Your task to perform on an android device: toggle pop-ups in chrome Image 0: 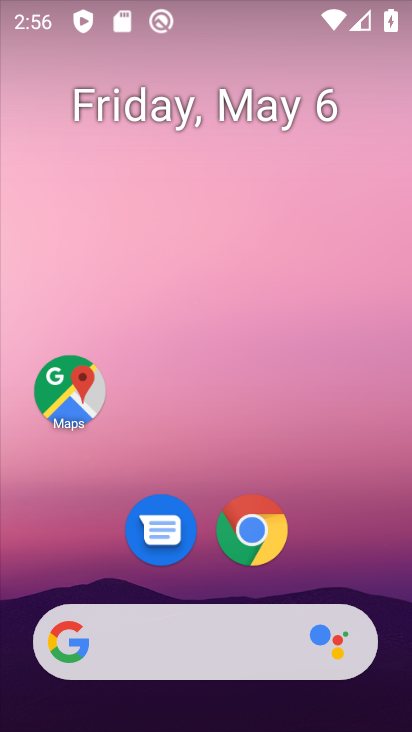
Step 0: drag from (197, 618) to (241, 184)
Your task to perform on an android device: toggle pop-ups in chrome Image 1: 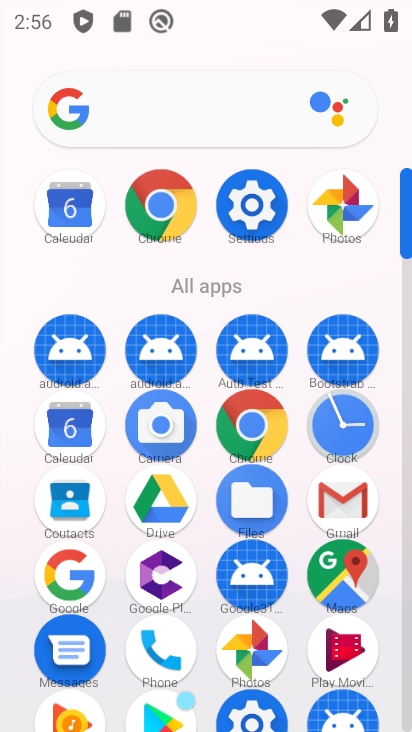
Step 1: click (184, 214)
Your task to perform on an android device: toggle pop-ups in chrome Image 2: 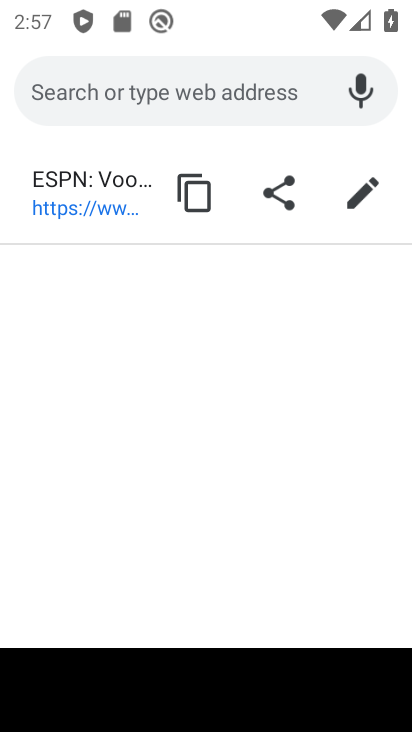
Step 2: press back button
Your task to perform on an android device: toggle pop-ups in chrome Image 3: 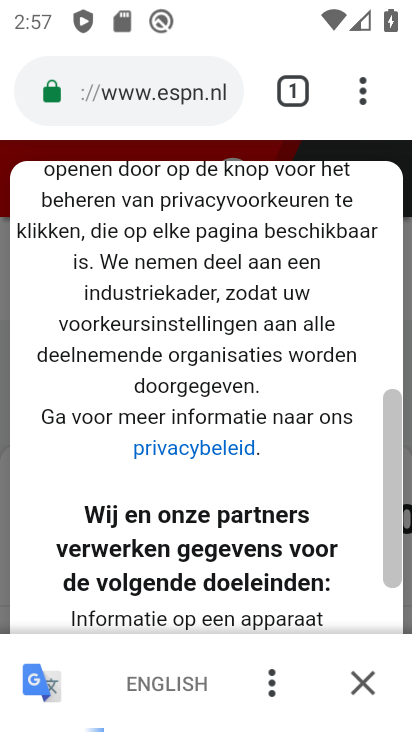
Step 3: click (359, 102)
Your task to perform on an android device: toggle pop-ups in chrome Image 4: 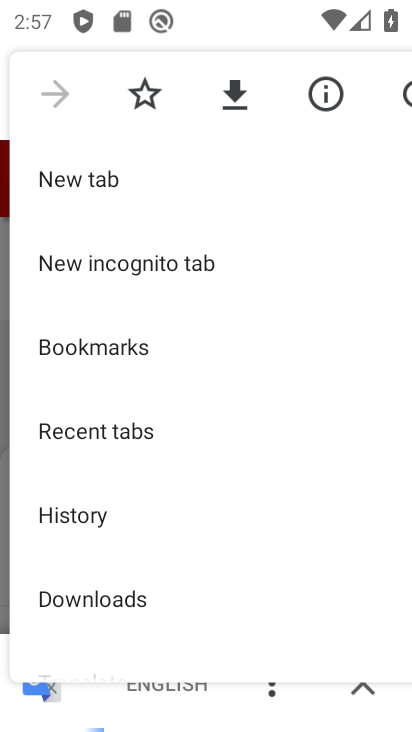
Step 4: drag from (206, 598) to (216, 379)
Your task to perform on an android device: toggle pop-ups in chrome Image 5: 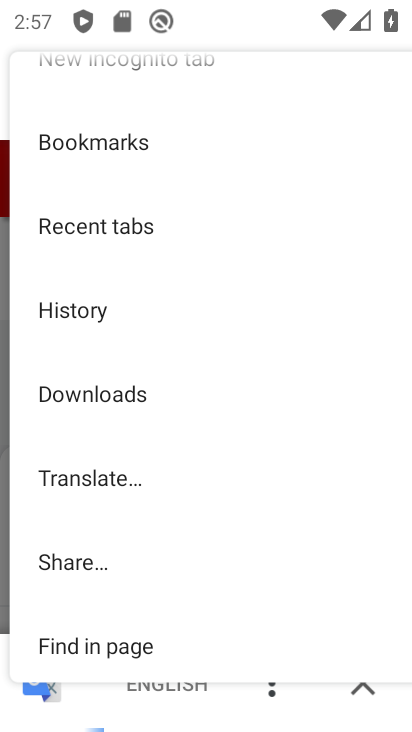
Step 5: drag from (212, 518) to (243, 229)
Your task to perform on an android device: toggle pop-ups in chrome Image 6: 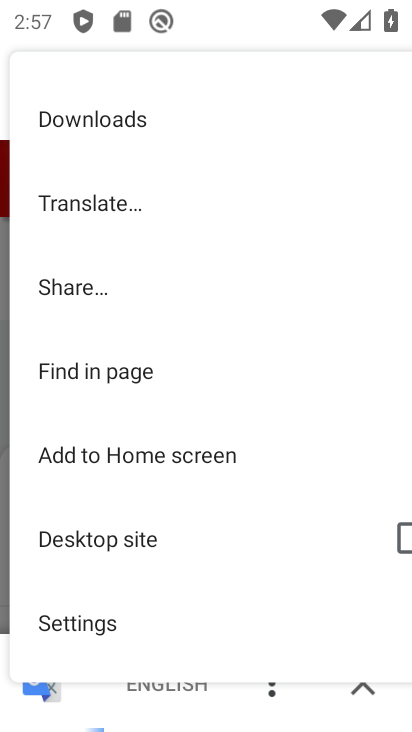
Step 6: click (106, 619)
Your task to perform on an android device: toggle pop-ups in chrome Image 7: 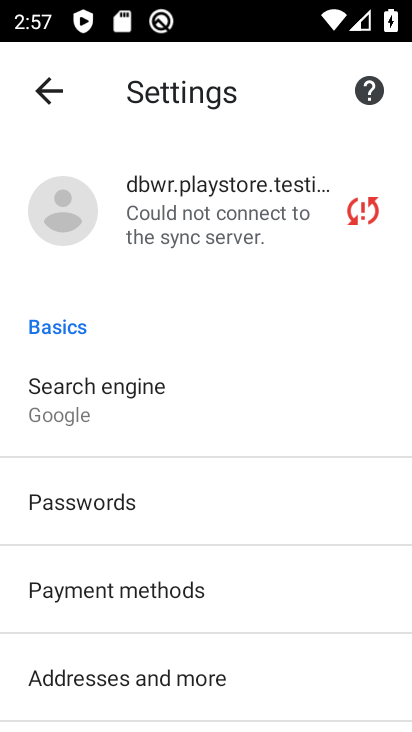
Step 7: drag from (245, 525) to (286, 62)
Your task to perform on an android device: toggle pop-ups in chrome Image 8: 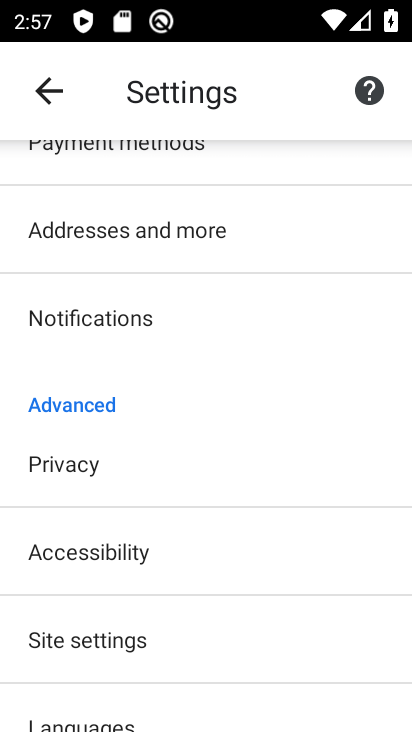
Step 8: drag from (238, 374) to (216, 27)
Your task to perform on an android device: toggle pop-ups in chrome Image 9: 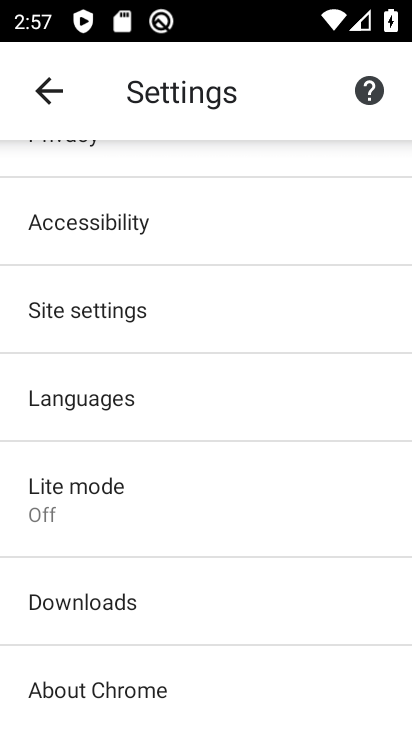
Step 9: click (121, 323)
Your task to perform on an android device: toggle pop-ups in chrome Image 10: 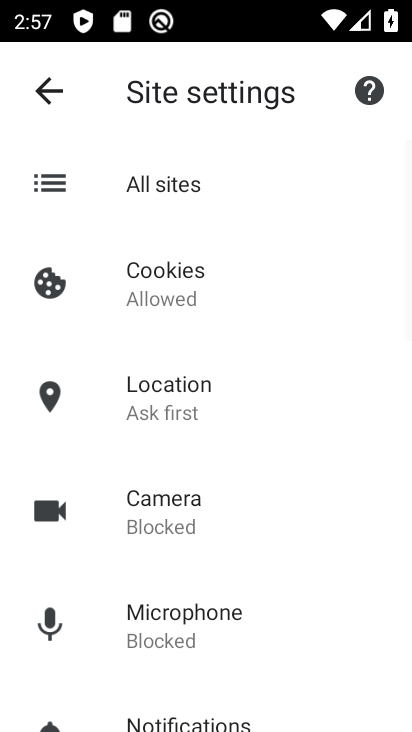
Step 10: drag from (161, 535) to (172, 261)
Your task to perform on an android device: toggle pop-ups in chrome Image 11: 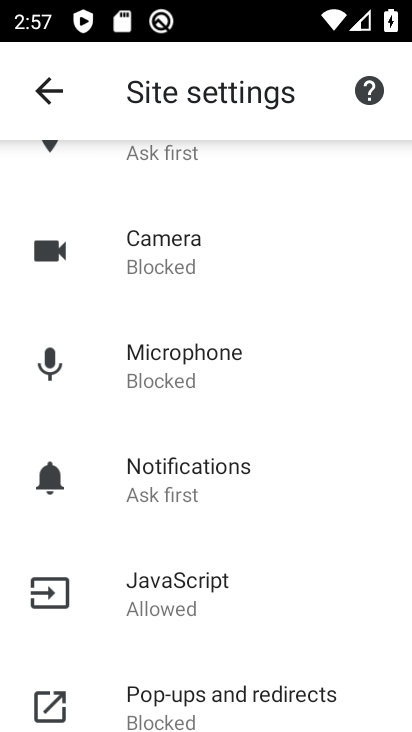
Step 11: drag from (179, 508) to (213, 331)
Your task to perform on an android device: toggle pop-ups in chrome Image 12: 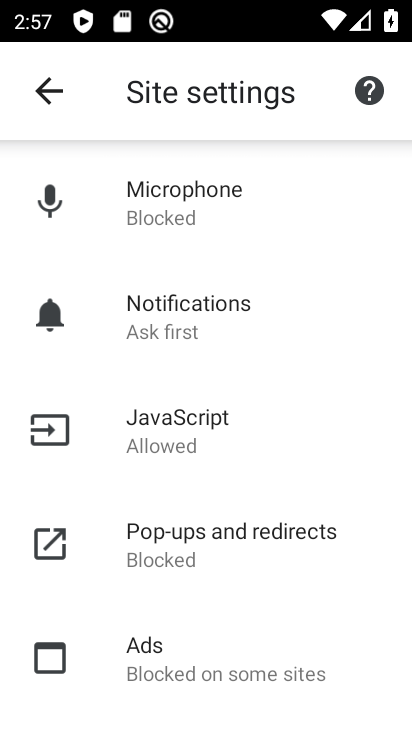
Step 12: drag from (204, 442) to (242, 150)
Your task to perform on an android device: toggle pop-ups in chrome Image 13: 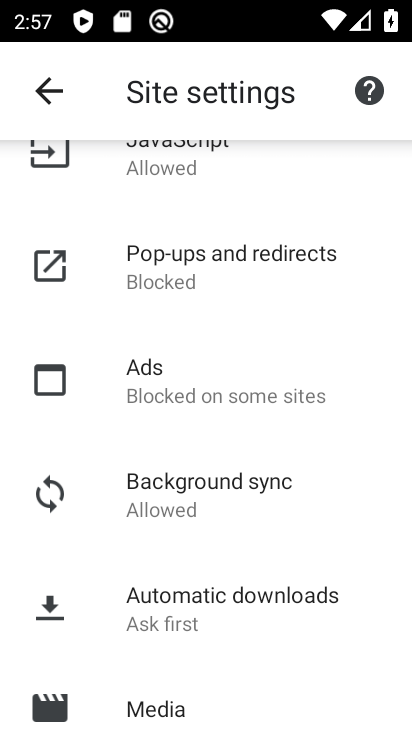
Step 13: click (202, 278)
Your task to perform on an android device: toggle pop-ups in chrome Image 14: 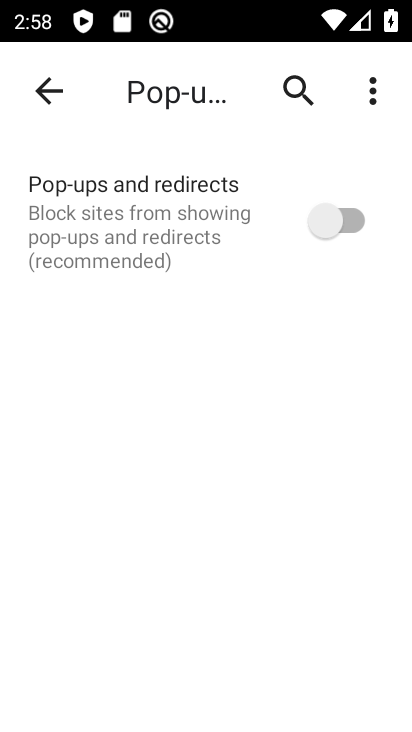
Step 14: click (367, 234)
Your task to perform on an android device: toggle pop-ups in chrome Image 15: 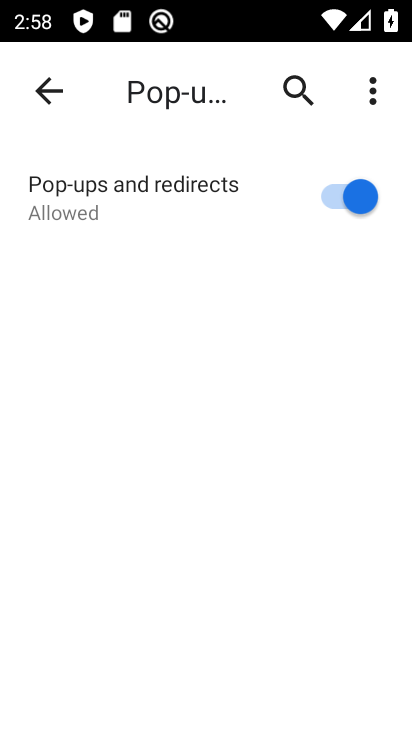
Step 15: task complete